Your task to perform on an android device: Go to Maps Image 0: 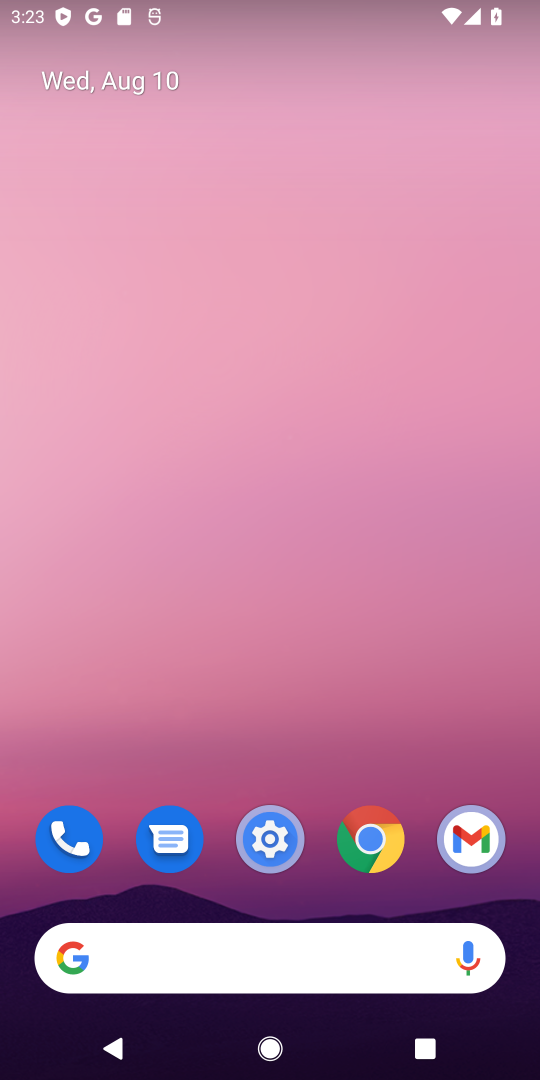
Step 0: drag from (38, 994) to (415, 335)
Your task to perform on an android device: Go to Maps Image 1: 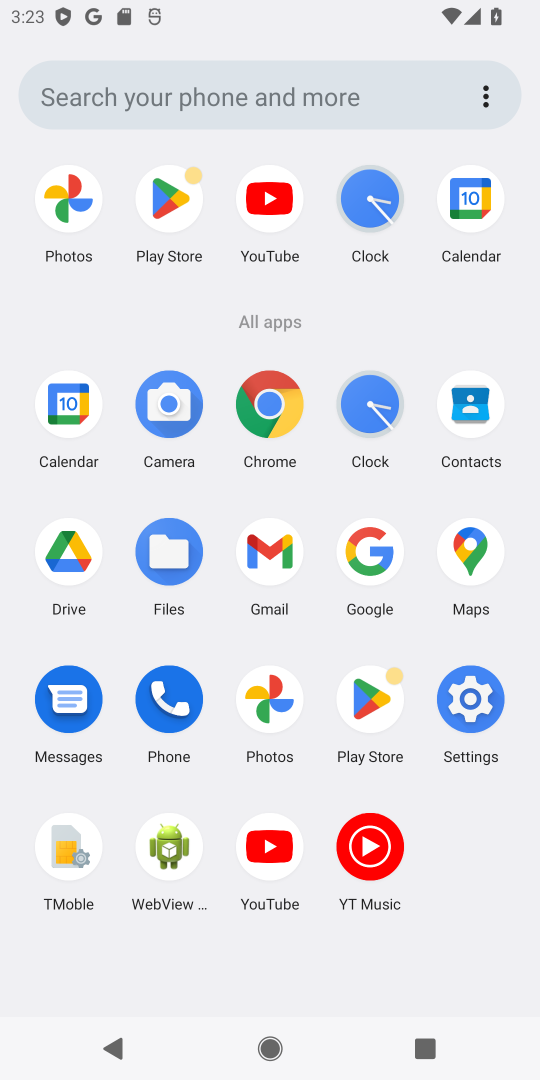
Step 1: click (446, 581)
Your task to perform on an android device: Go to Maps Image 2: 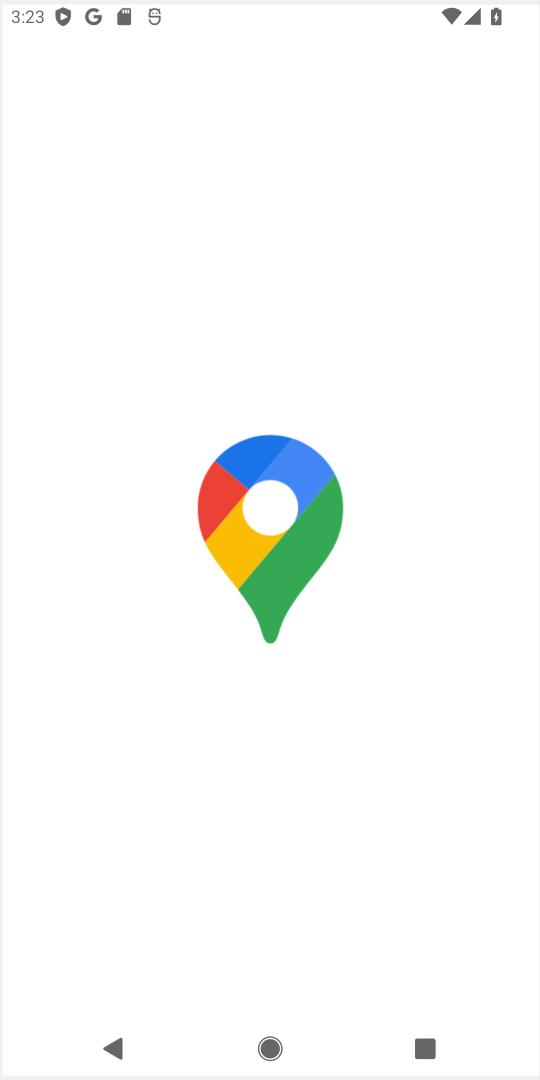
Step 2: click (471, 554)
Your task to perform on an android device: Go to Maps Image 3: 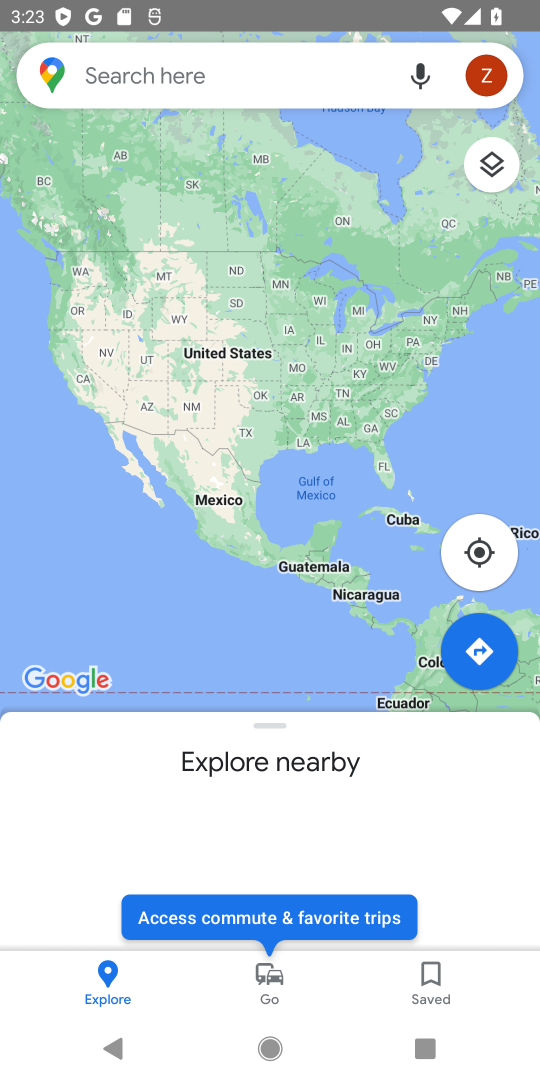
Step 3: task complete